Your task to perform on an android device: Search for hotels in Tokyo Image 0: 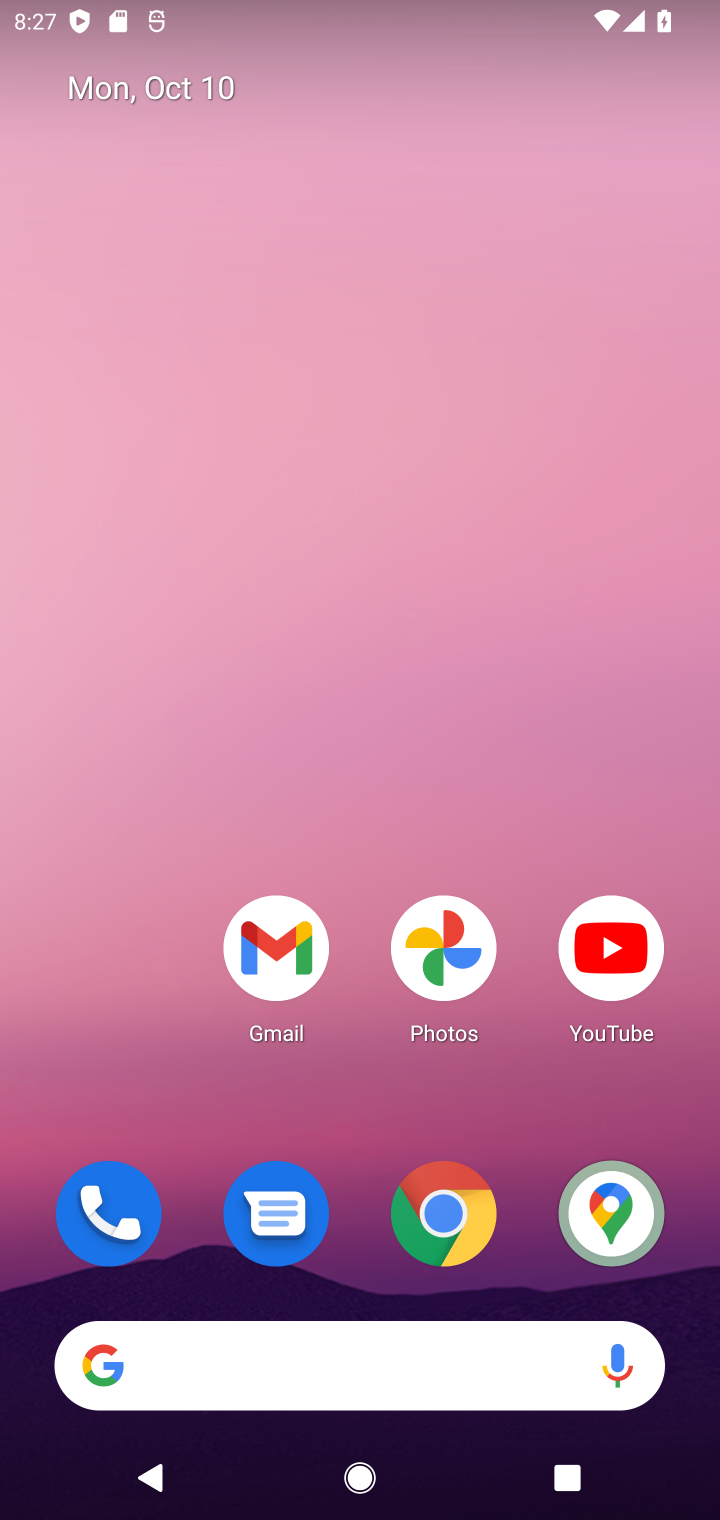
Step 0: click (262, 1375)
Your task to perform on an android device: Search for hotels in Tokyo Image 1: 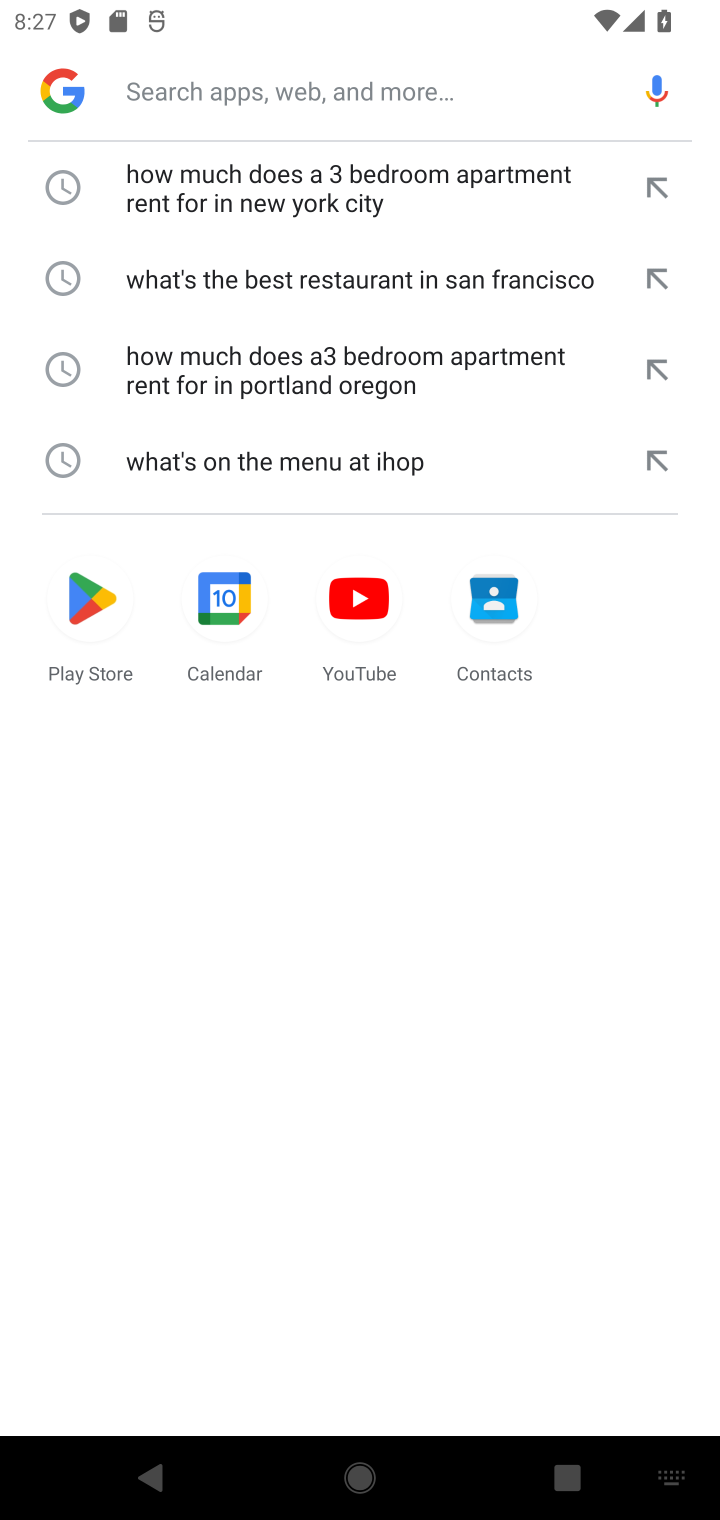
Step 1: click (300, 84)
Your task to perform on an android device: Search for hotels in Tokyo Image 2: 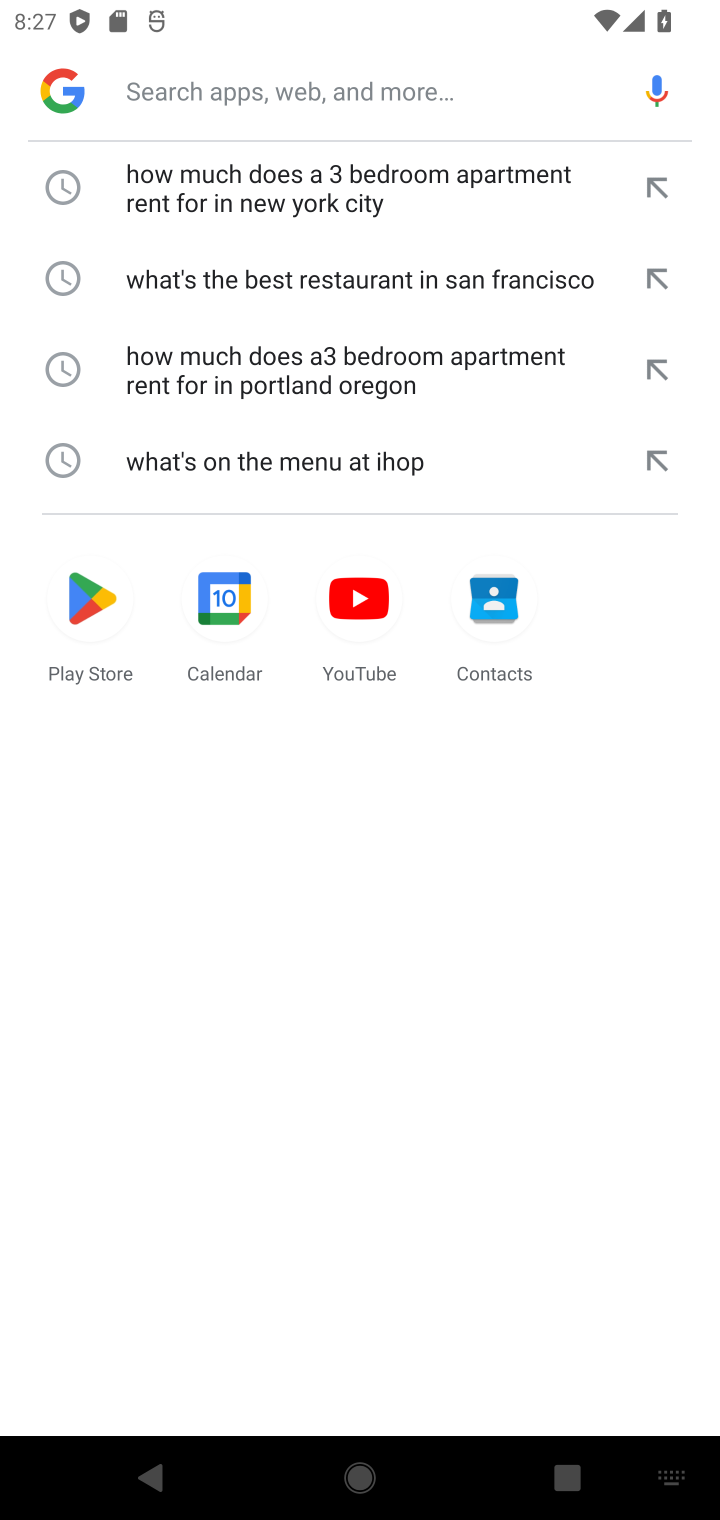
Step 2: click (178, 85)
Your task to perform on an android device: Search for hotels in Tokyo Image 3: 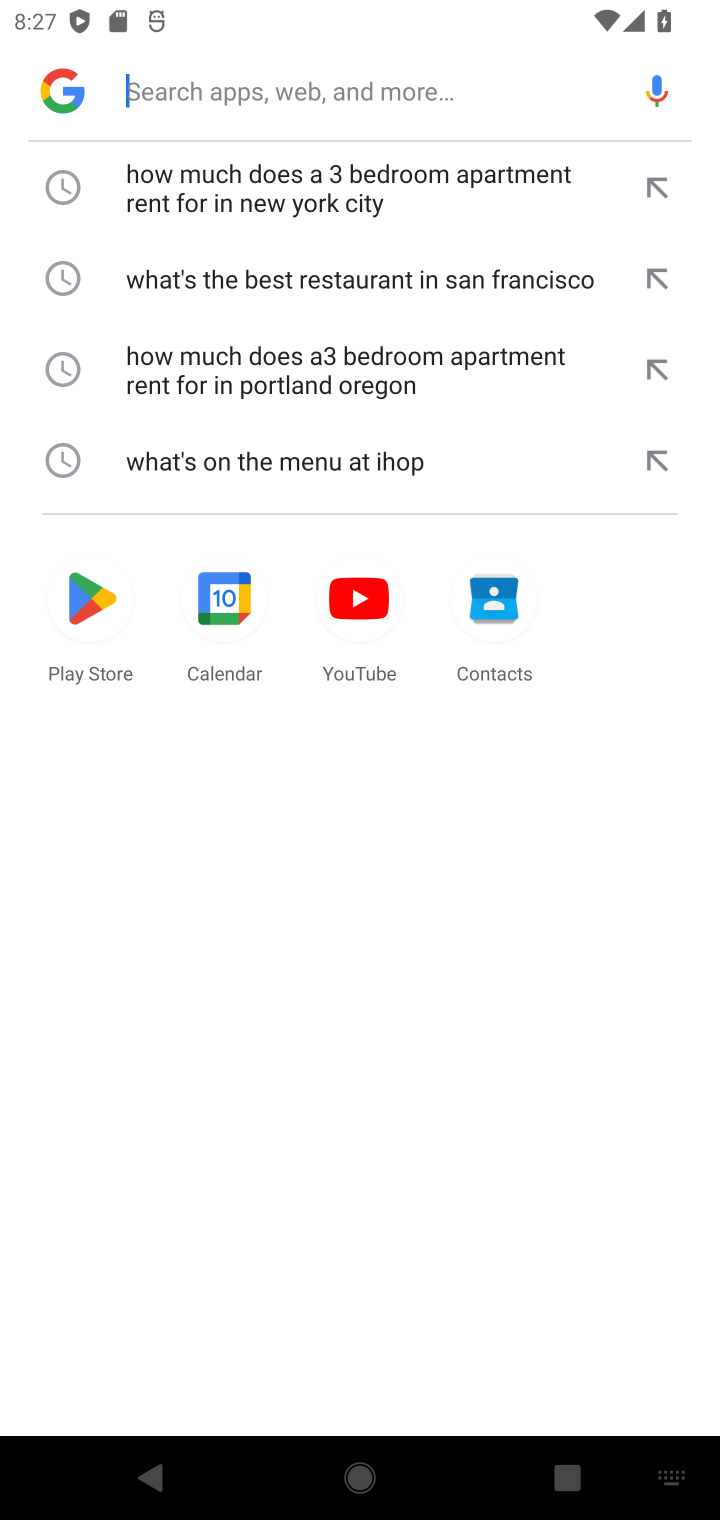
Step 3: type "hotels in Tokyo"
Your task to perform on an android device: Search for hotels in Tokyo Image 4: 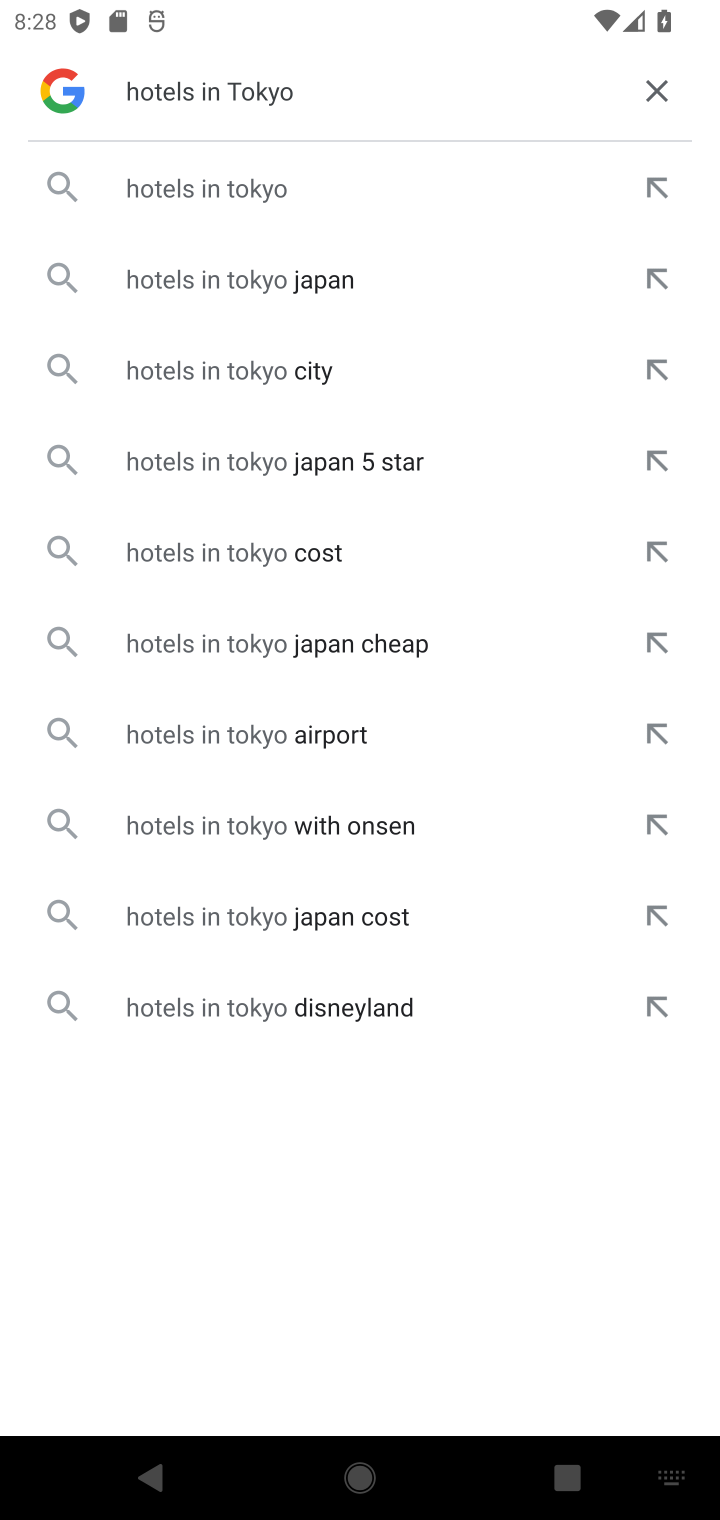
Step 4: click (244, 167)
Your task to perform on an android device: Search for hotels in Tokyo Image 5: 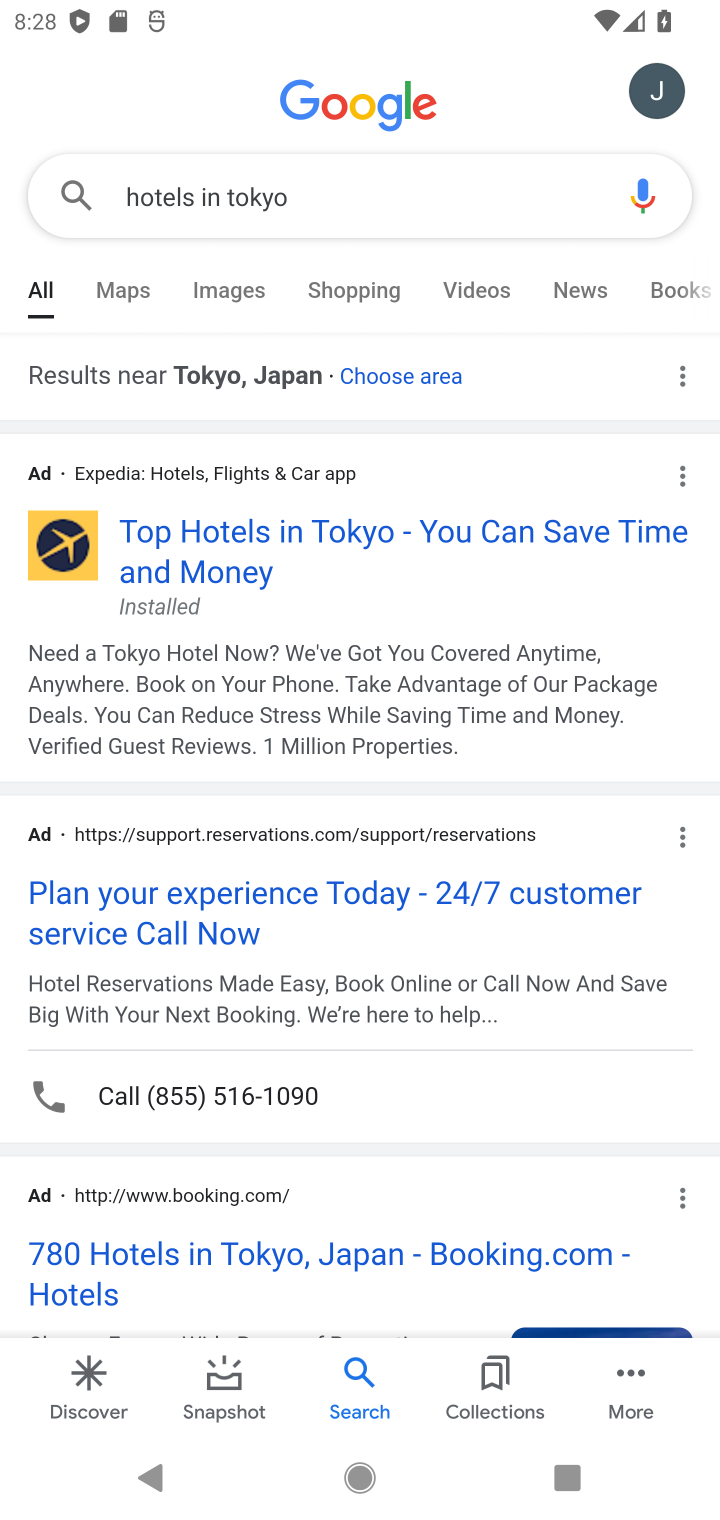
Step 5: task complete